Your task to perform on an android device: Go to privacy settings Image 0: 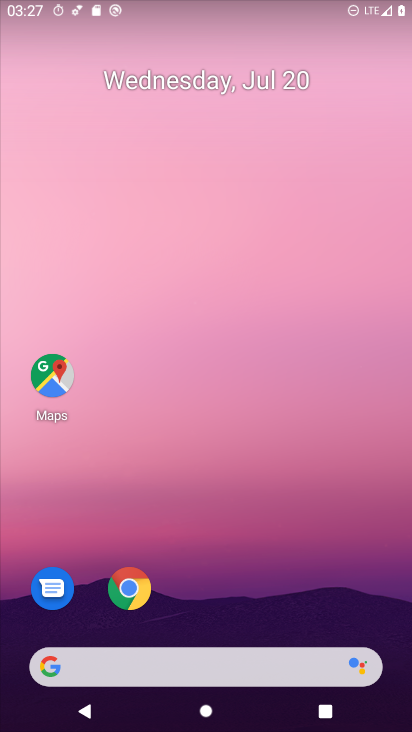
Step 0: drag from (226, 596) to (251, 0)
Your task to perform on an android device: Go to privacy settings Image 1: 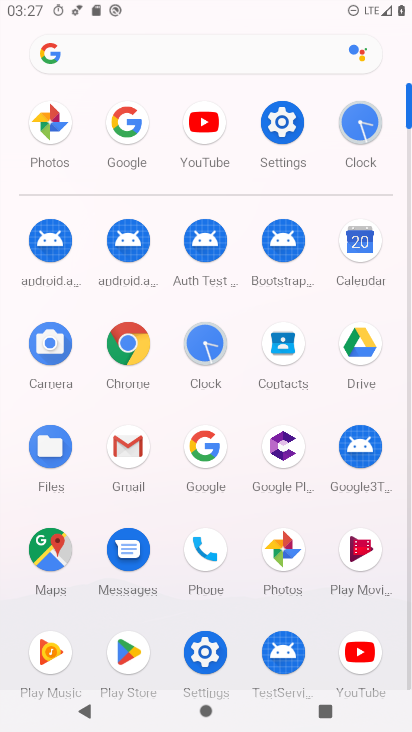
Step 1: click (275, 137)
Your task to perform on an android device: Go to privacy settings Image 2: 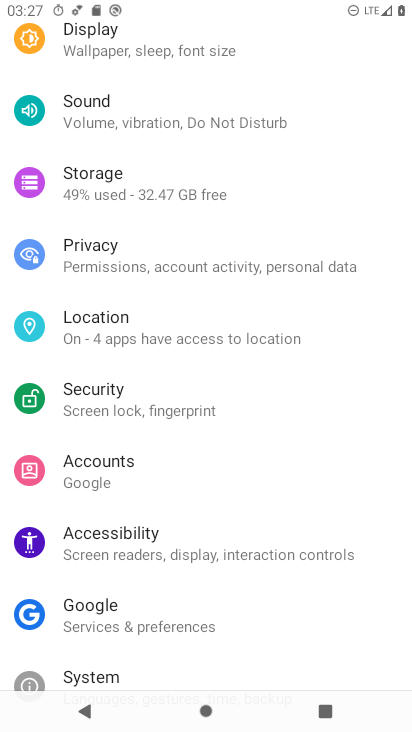
Step 2: click (76, 255)
Your task to perform on an android device: Go to privacy settings Image 3: 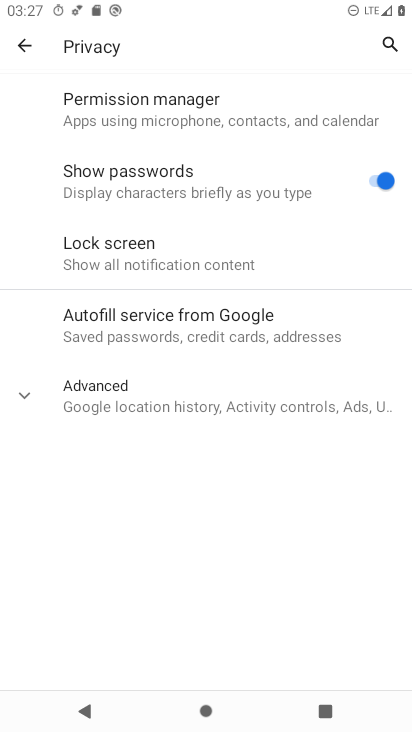
Step 3: click (132, 391)
Your task to perform on an android device: Go to privacy settings Image 4: 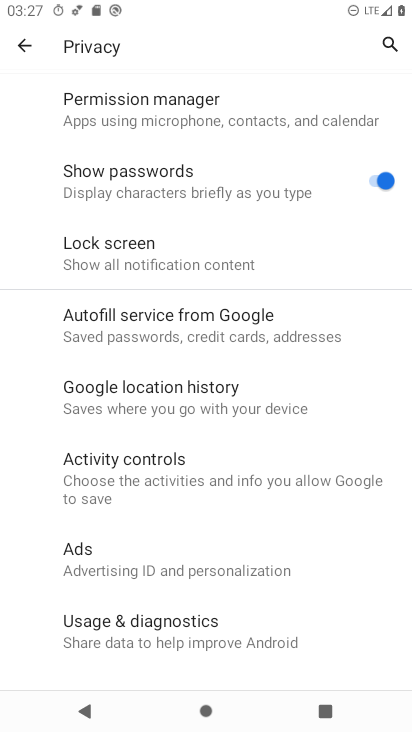
Step 4: task complete